Your task to perform on an android device: toggle pop-ups in chrome Image 0: 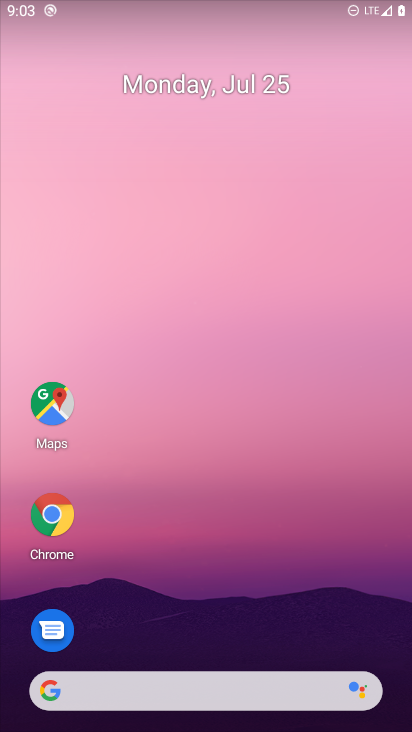
Step 0: click (51, 521)
Your task to perform on an android device: toggle pop-ups in chrome Image 1: 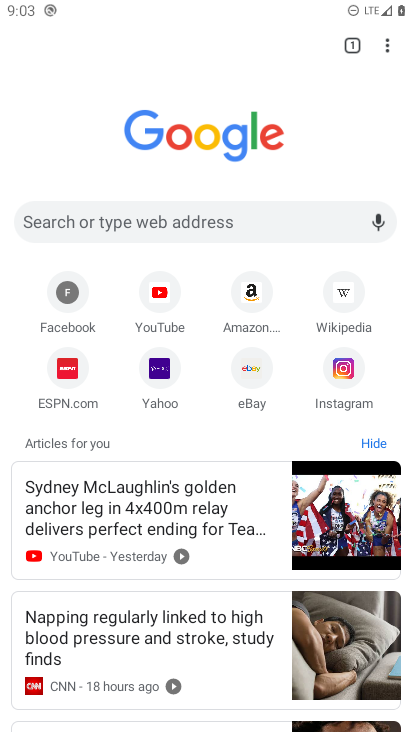
Step 1: click (386, 53)
Your task to perform on an android device: toggle pop-ups in chrome Image 2: 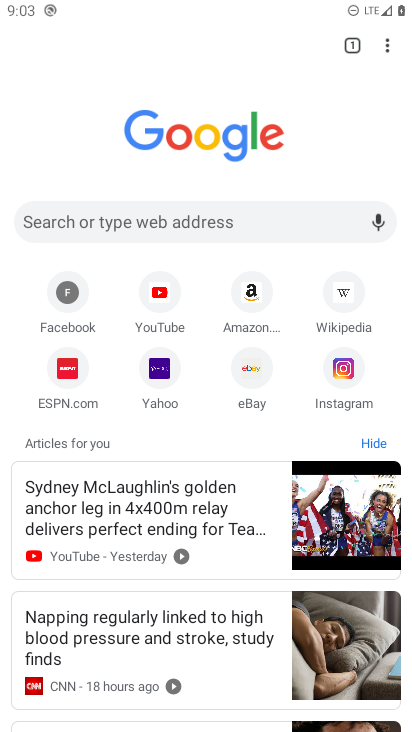
Step 2: click (386, 49)
Your task to perform on an android device: toggle pop-ups in chrome Image 3: 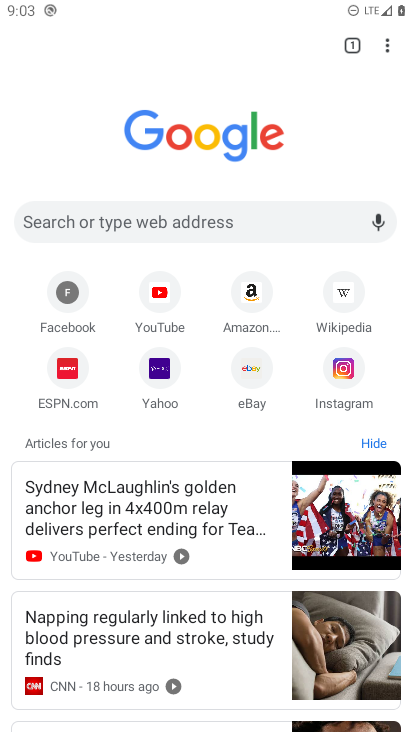
Step 3: click (390, 37)
Your task to perform on an android device: toggle pop-ups in chrome Image 4: 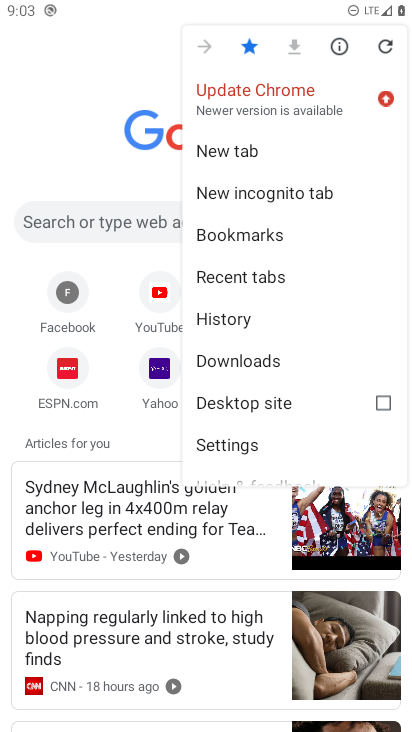
Step 4: click (246, 448)
Your task to perform on an android device: toggle pop-ups in chrome Image 5: 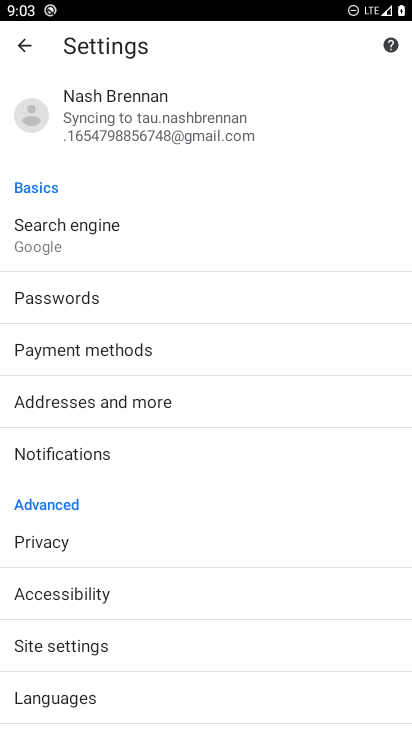
Step 5: click (46, 636)
Your task to perform on an android device: toggle pop-ups in chrome Image 6: 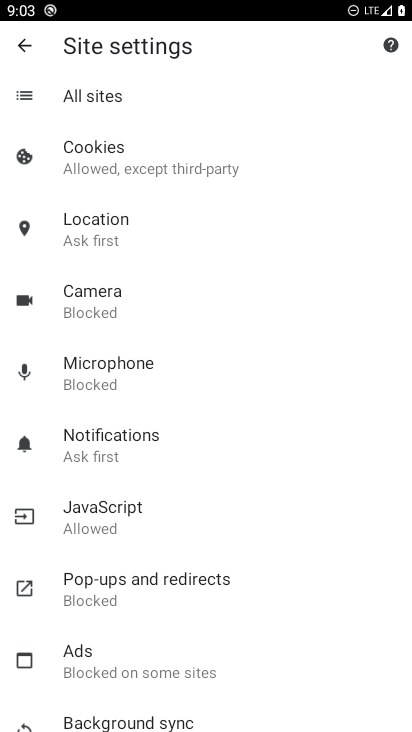
Step 6: click (89, 586)
Your task to perform on an android device: toggle pop-ups in chrome Image 7: 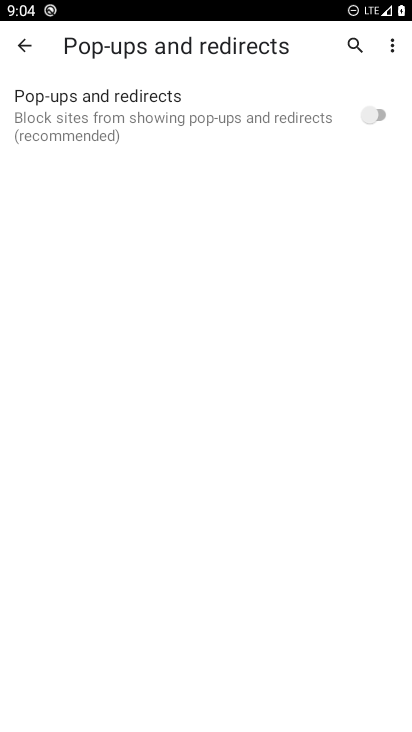
Step 7: click (384, 125)
Your task to perform on an android device: toggle pop-ups in chrome Image 8: 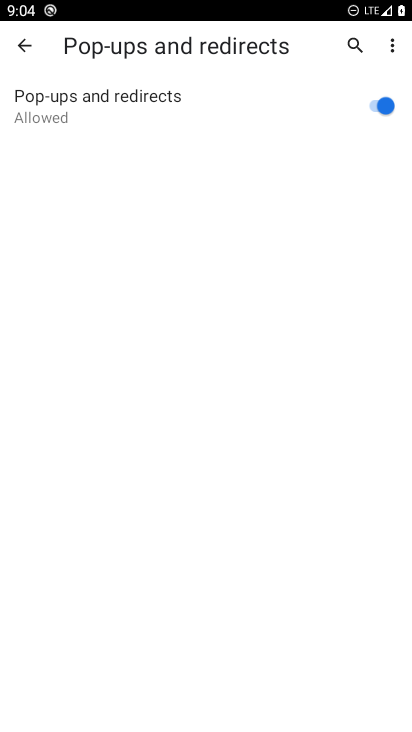
Step 8: task complete